Your task to perform on an android device: Search for the best rated 3d printer on Amazon. Image 0: 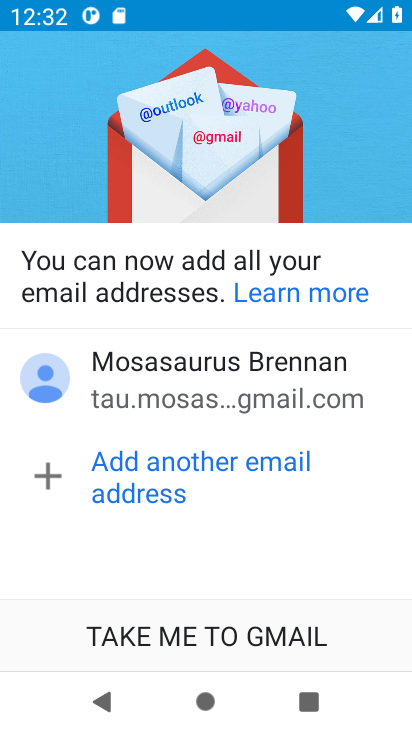
Step 0: press home button
Your task to perform on an android device: Search for the best rated 3d printer on Amazon. Image 1: 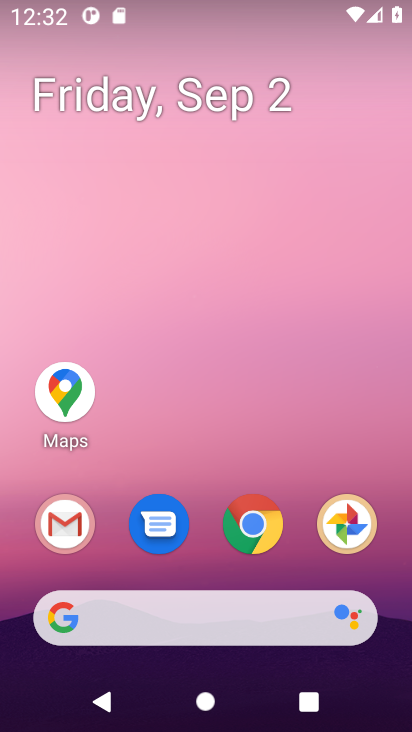
Step 1: click (280, 618)
Your task to perform on an android device: Search for the best rated 3d printer on Amazon. Image 2: 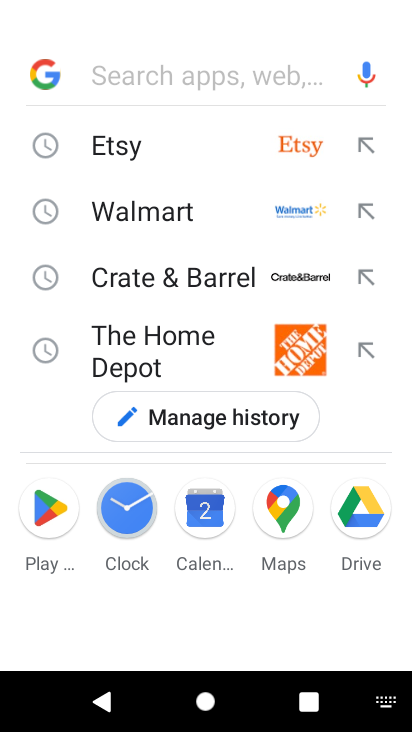
Step 2: press enter
Your task to perform on an android device: Search for the best rated 3d printer on Amazon. Image 3: 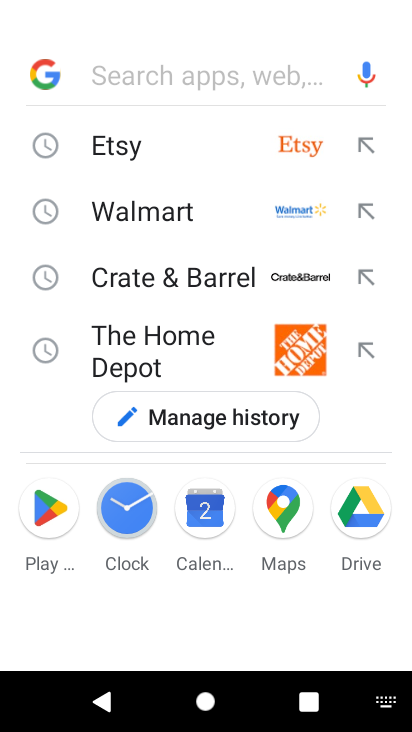
Step 3: type "amazon"
Your task to perform on an android device: Search for the best rated 3d printer on Amazon. Image 4: 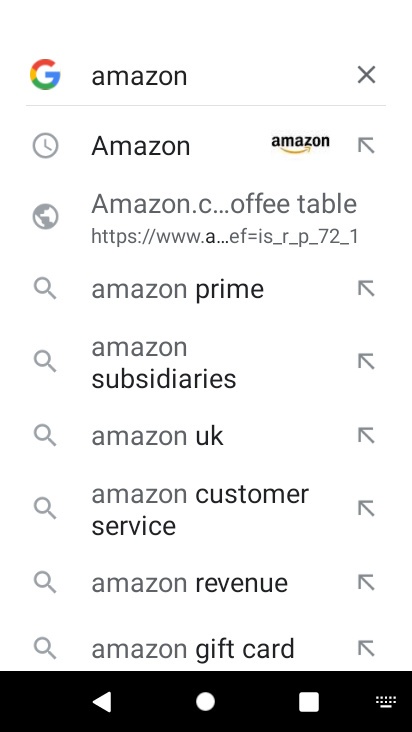
Step 4: click (182, 144)
Your task to perform on an android device: Search for the best rated 3d printer on Amazon. Image 5: 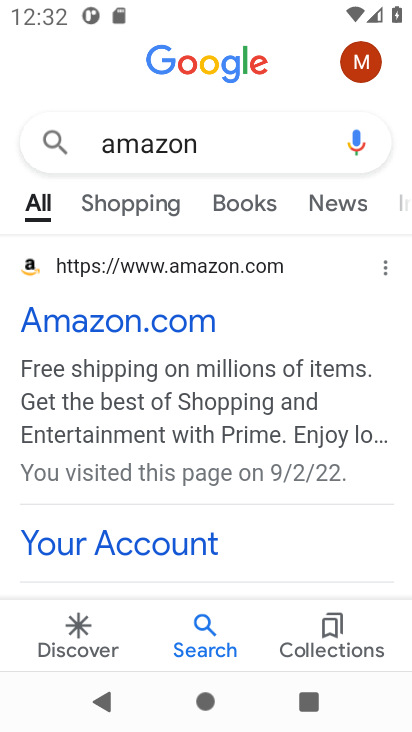
Step 5: click (175, 329)
Your task to perform on an android device: Search for the best rated 3d printer on Amazon. Image 6: 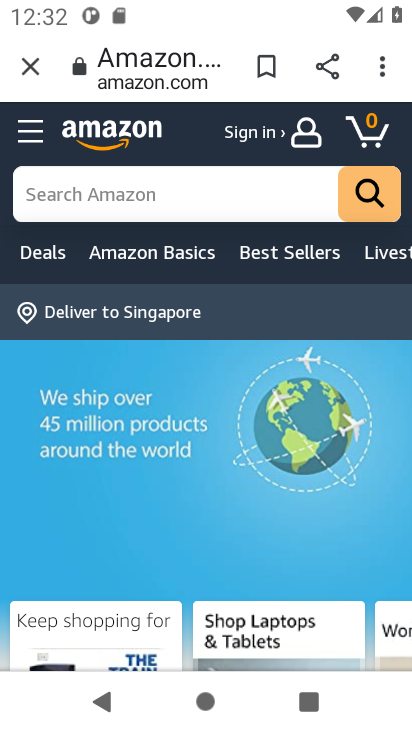
Step 6: click (269, 192)
Your task to perform on an android device: Search for the best rated 3d printer on Amazon. Image 7: 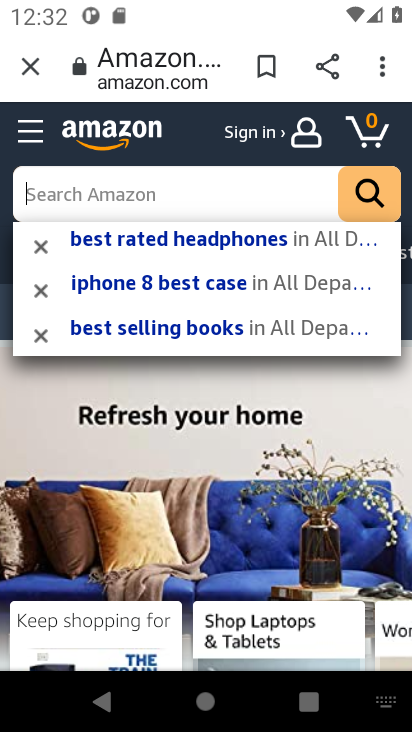
Step 7: press enter
Your task to perform on an android device: Search for the best rated 3d printer on Amazon. Image 8: 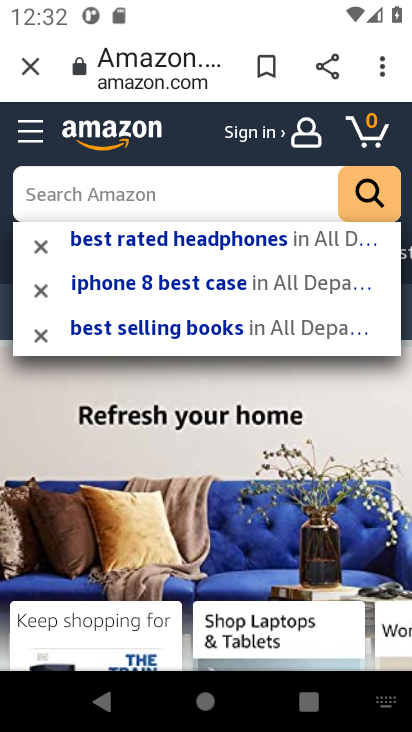
Step 8: type "3d printer"
Your task to perform on an android device: Search for the best rated 3d printer on Amazon. Image 9: 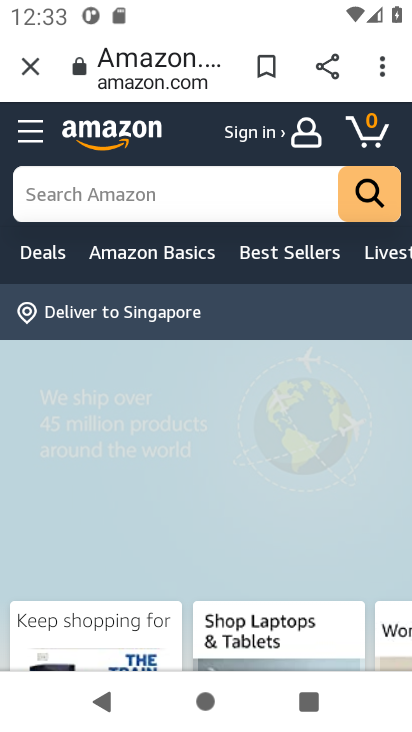
Step 9: click (210, 200)
Your task to perform on an android device: Search for the best rated 3d printer on Amazon. Image 10: 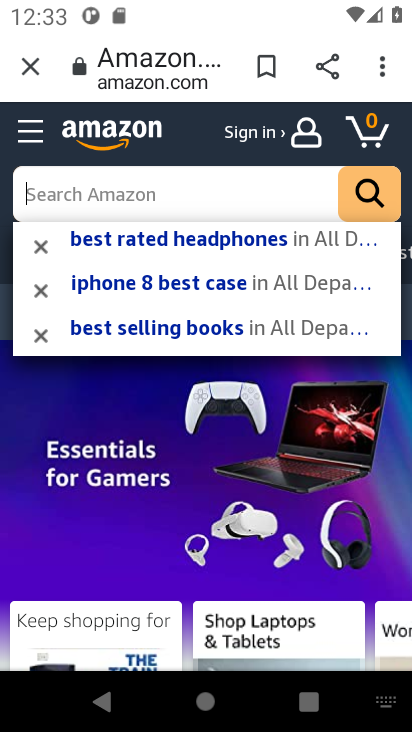
Step 10: type "3d printer"
Your task to perform on an android device: Search for the best rated 3d printer on Amazon. Image 11: 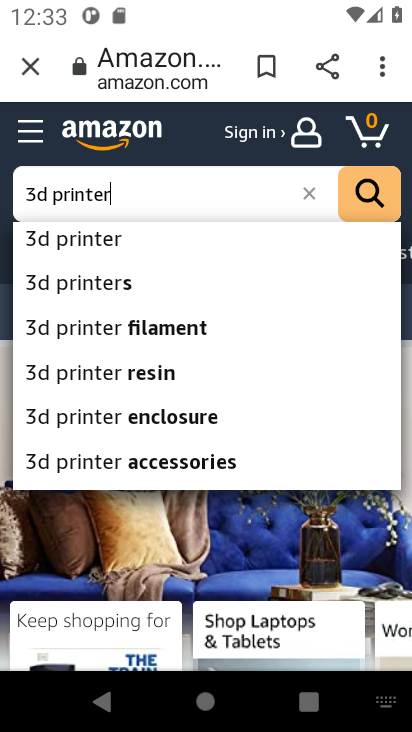
Step 11: click (69, 237)
Your task to perform on an android device: Search for the best rated 3d printer on Amazon. Image 12: 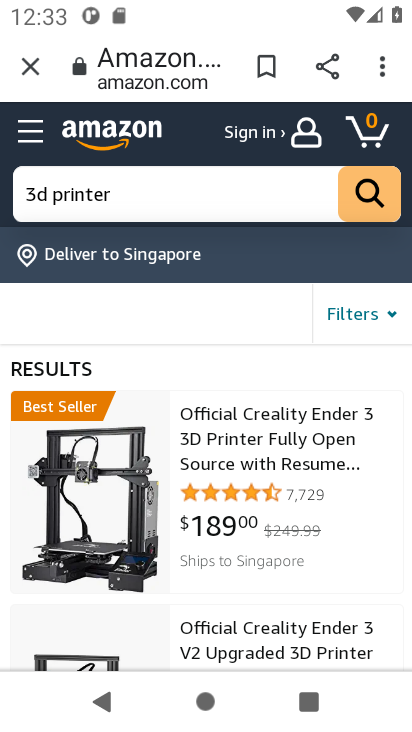
Step 12: task complete